Your task to perform on an android device: turn on the 24-hour format for clock Image 0: 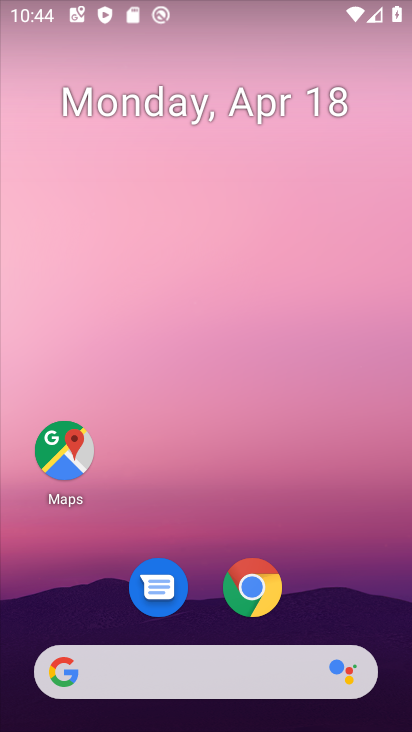
Step 0: drag from (339, 591) to (345, 78)
Your task to perform on an android device: turn on the 24-hour format for clock Image 1: 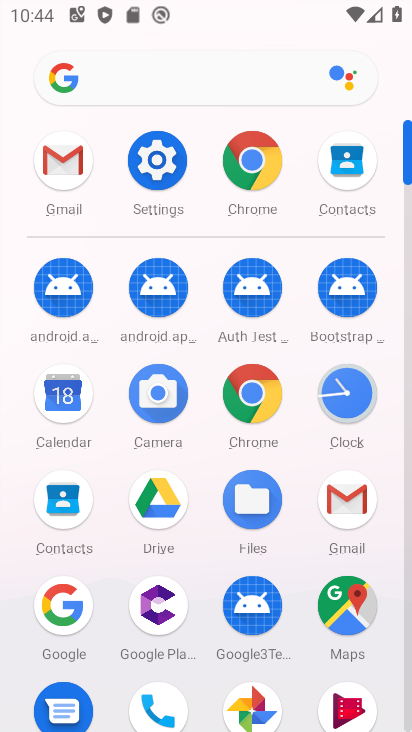
Step 1: click (359, 402)
Your task to perform on an android device: turn on the 24-hour format for clock Image 2: 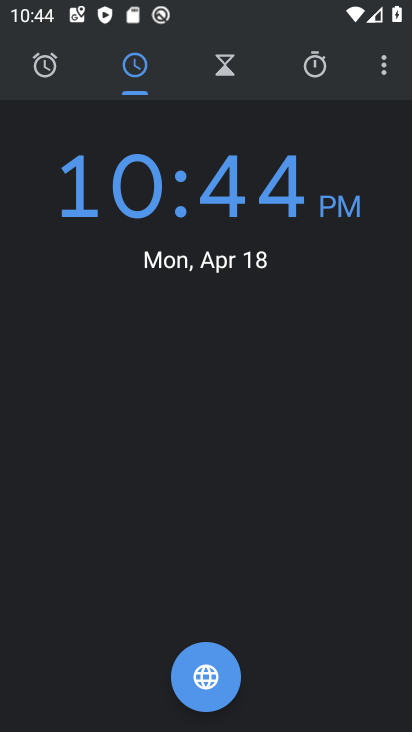
Step 2: click (386, 61)
Your task to perform on an android device: turn on the 24-hour format for clock Image 3: 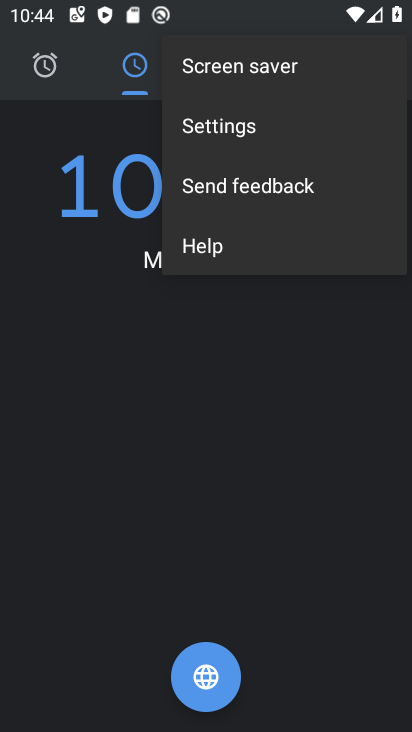
Step 3: click (235, 127)
Your task to perform on an android device: turn on the 24-hour format for clock Image 4: 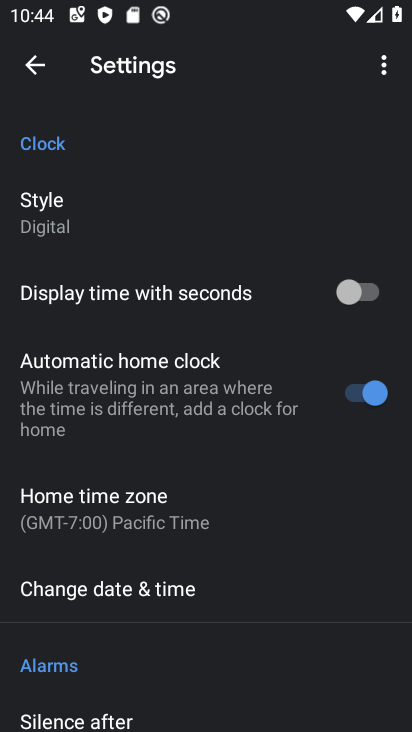
Step 4: click (164, 588)
Your task to perform on an android device: turn on the 24-hour format for clock Image 5: 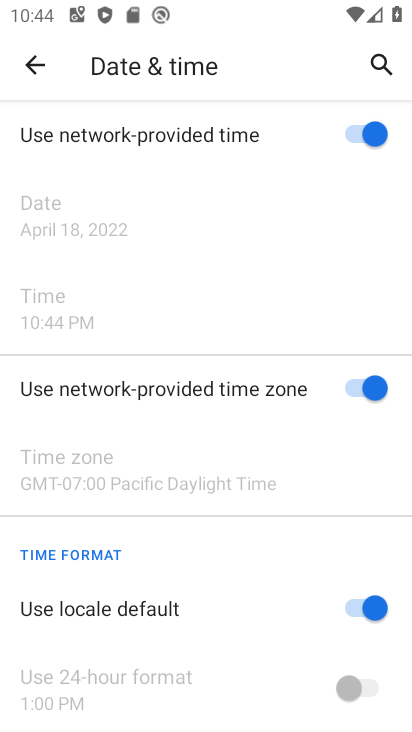
Step 5: click (357, 610)
Your task to perform on an android device: turn on the 24-hour format for clock Image 6: 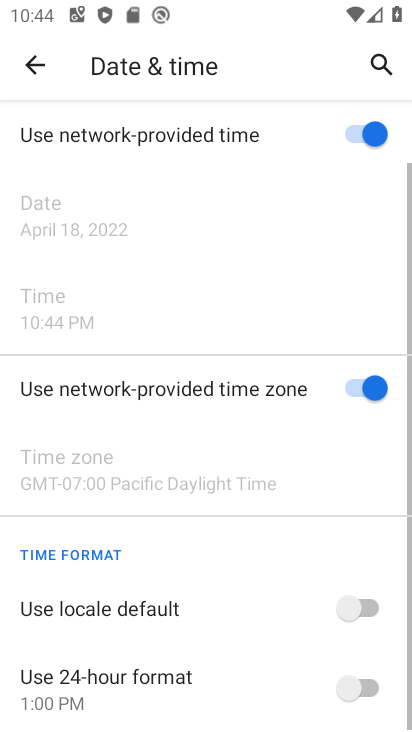
Step 6: click (368, 686)
Your task to perform on an android device: turn on the 24-hour format for clock Image 7: 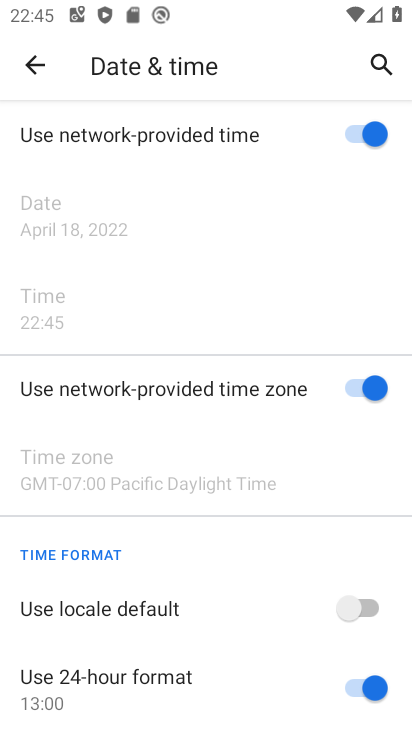
Step 7: task complete